Your task to perform on an android device: read, delete, or share a saved page in the chrome app Image 0: 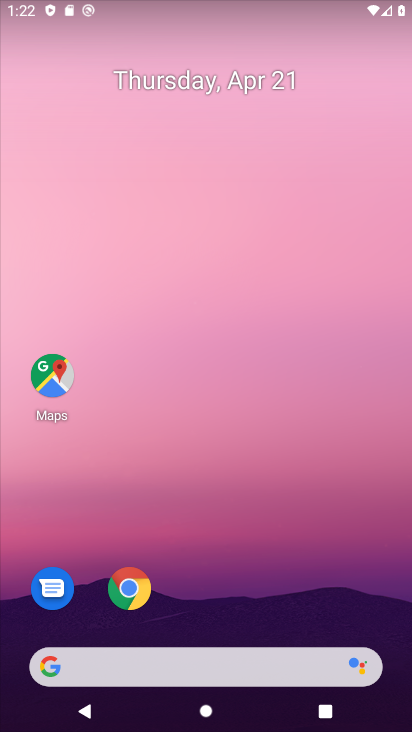
Step 0: drag from (234, 638) to (297, 129)
Your task to perform on an android device: read, delete, or share a saved page in the chrome app Image 1: 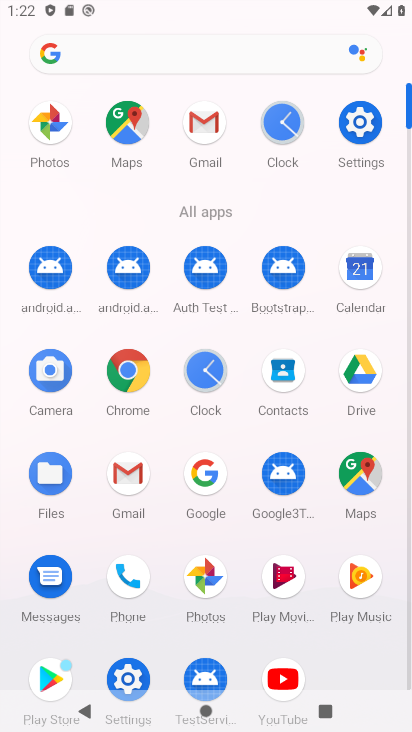
Step 1: click (140, 385)
Your task to perform on an android device: read, delete, or share a saved page in the chrome app Image 2: 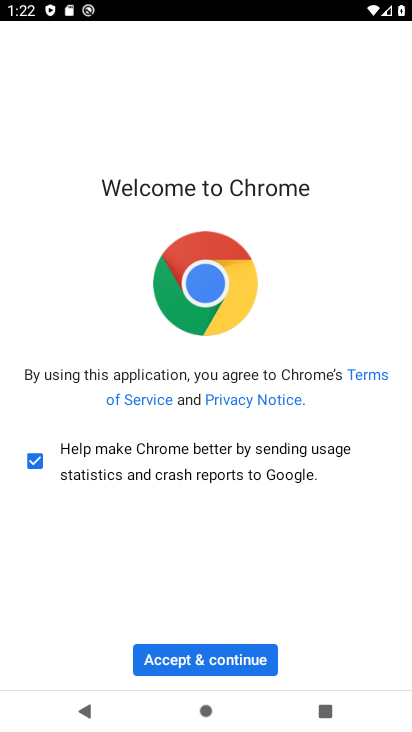
Step 2: click (199, 658)
Your task to perform on an android device: read, delete, or share a saved page in the chrome app Image 3: 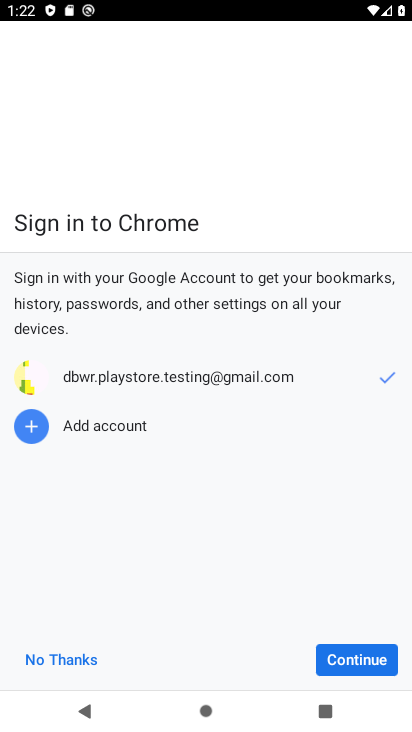
Step 3: click (381, 667)
Your task to perform on an android device: read, delete, or share a saved page in the chrome app Image 4: 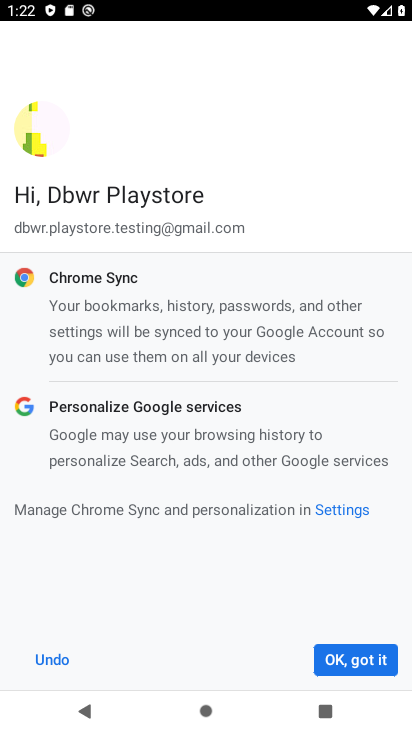
Step 4: click (381, 667)
Your task to perform on an android device: read, delete, or share a saved page in the chrome app Image 5: 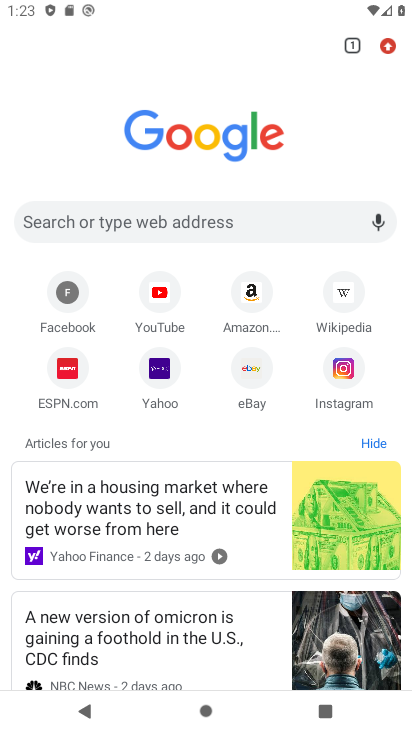
Step 5: click (390, 48)
Your task to perform on an android device: read, delete, or share a saved page in the chrome app Image 6: 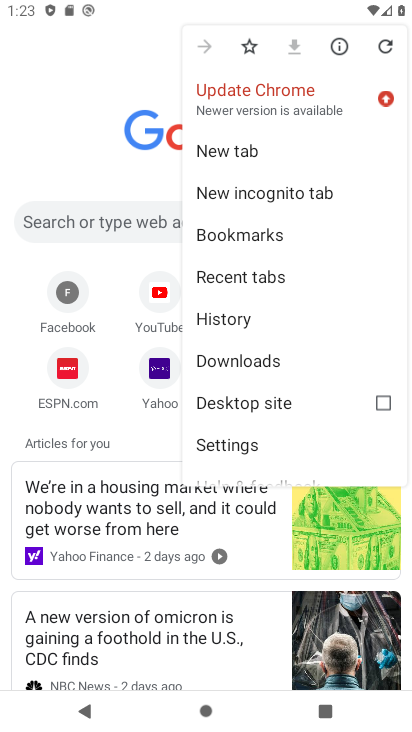
Step 6: drag from (314, 392) to (287, 249)
Your task to perform on an android device: read, delete, or share a saved page in the chrome app Image 7: 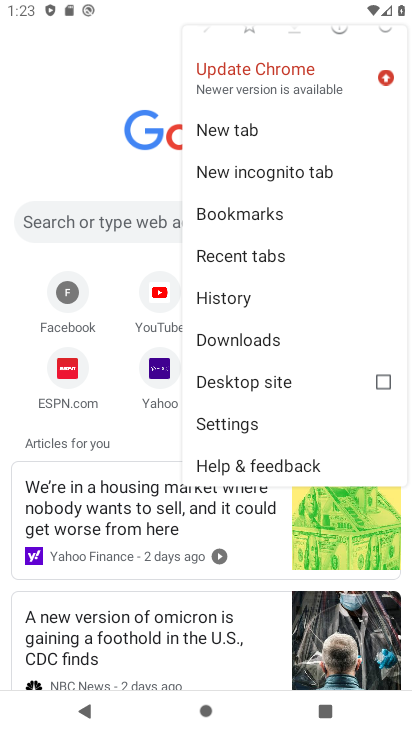
Step 7: click (237, 424)
Your task to perform on an android device: read, delete, or share a saved page in the chrome app Image 8: 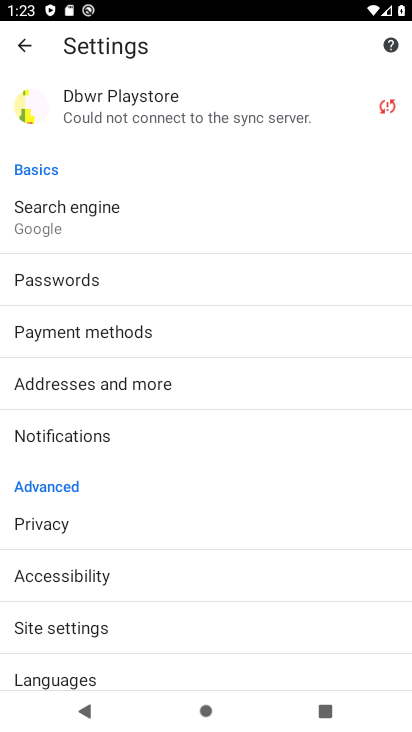
Step 8: click (28, 44)
Your task to perform on an android device: read, delete, or share a saved page in the chrome app Image 9: 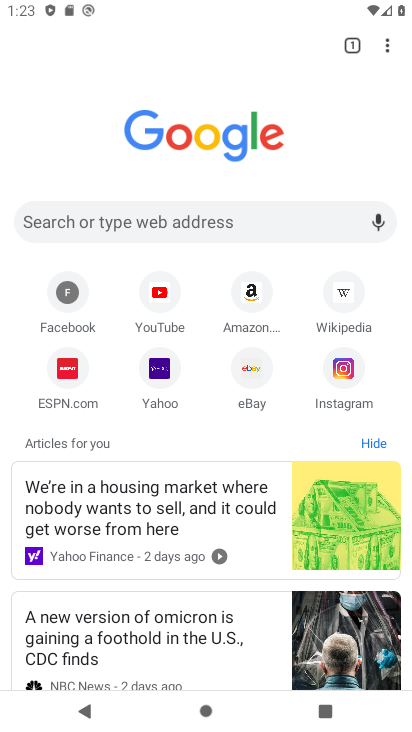
Step 9: click (386, 46)
Your task to perform on an android device: read, delete, or share a saved page in the chrome app Image 10: 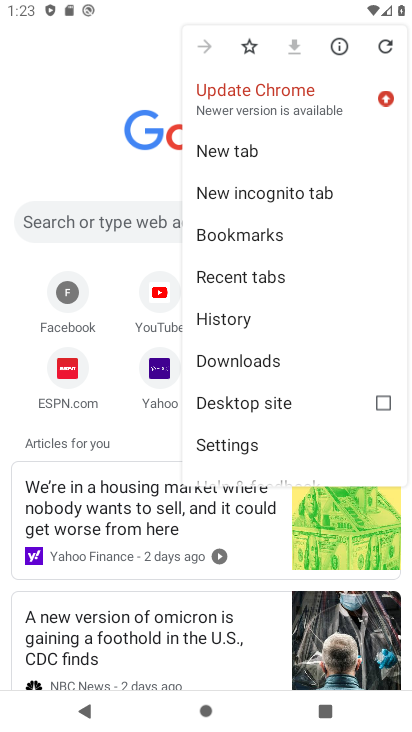
Step 10: click (263, 364)
Your task to perform on an android device: read, delete, or share a saved page in the chrome app Image 11: 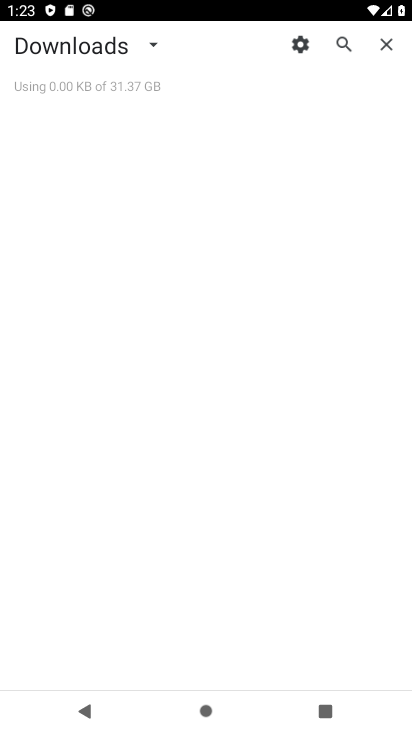
Step 11: click (151, 42)
Your task to perform on an android device: read, delete, or share a saved page in the chrome app Image 12: 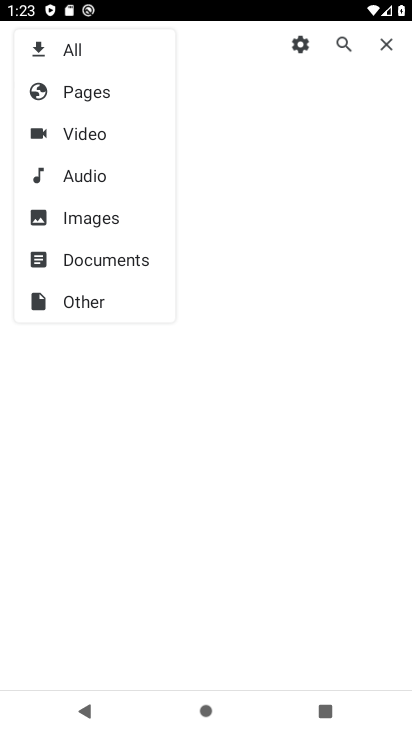
Step 12: click (98, 94)
Your task to perform on an android device: read, delete, or share a saved page in the chrome app Image 13: 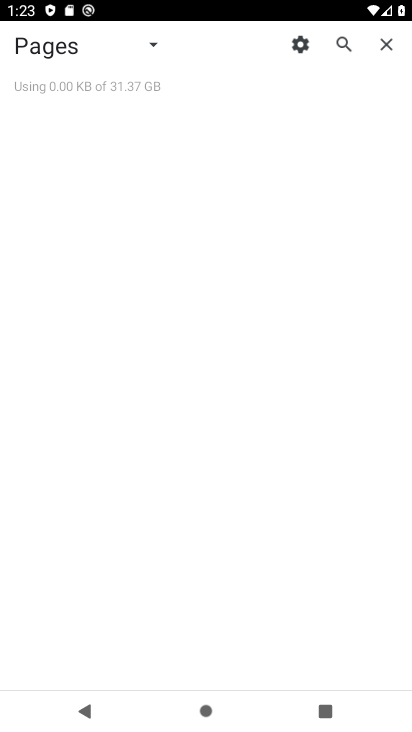
Step 13: task complete